Your task to perform on an android device: check data usage Image 0: 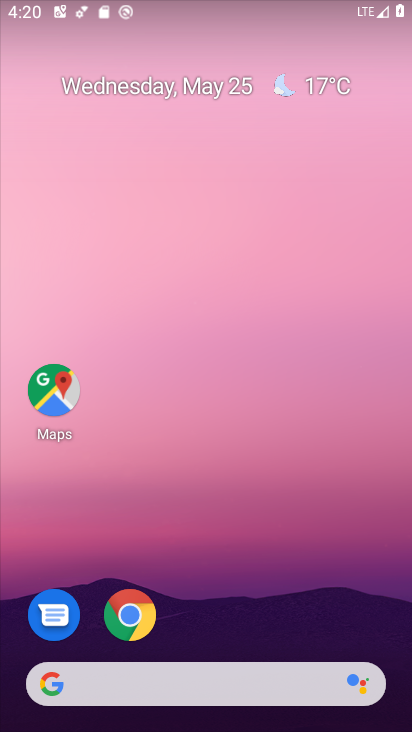
Step 0: drag from (371, 596) to (249, 1)
Your task to perform on an android device: check data usage Image 1: 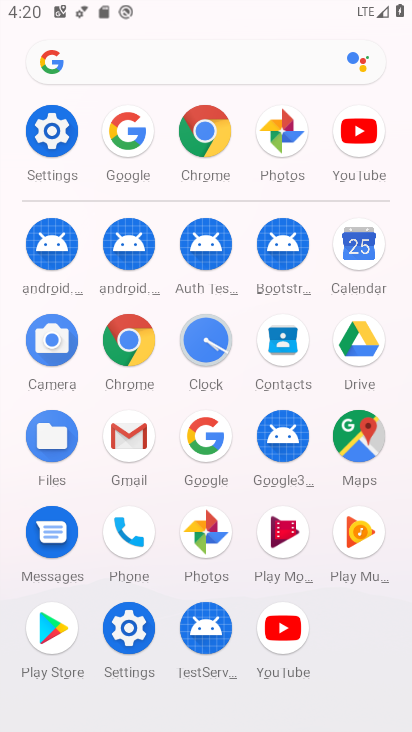
Step 1: click (57, 133)
Your task to perform on an android device: check data usage Image 2: 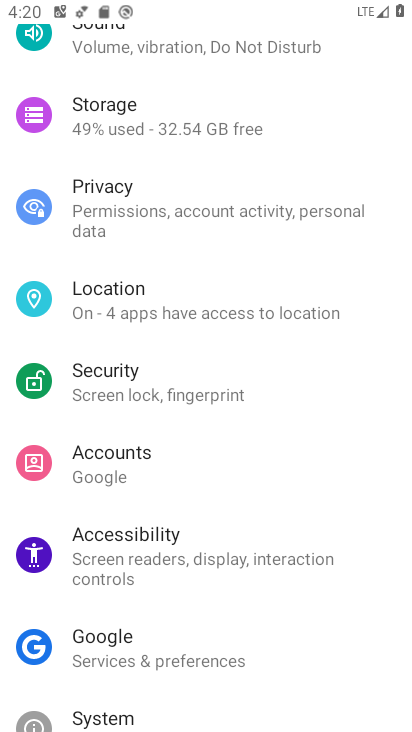
Step 2: drag from (263, 92) to (223, 677)
Your task to perform on an android device: check data usage Image 3: 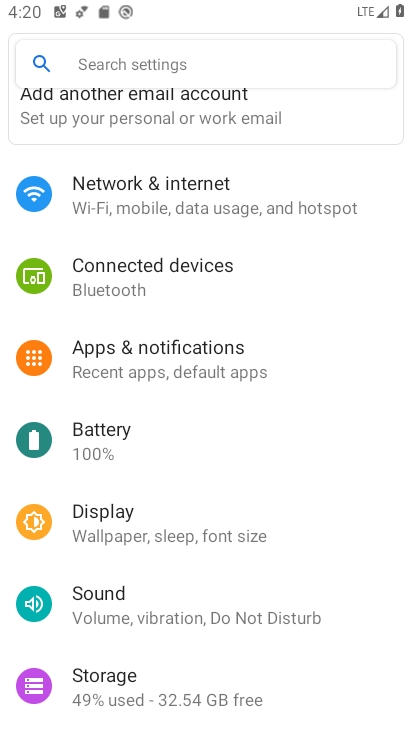
Step 3: click (190, 209)
Your task to perform on an android device: check data usage Image 4: 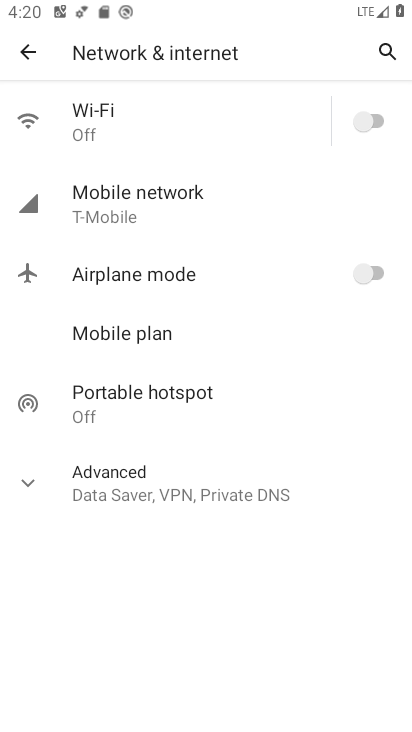
Step 4: click (105, 189)
Your task to perform on an android device: check data usage Image 5: 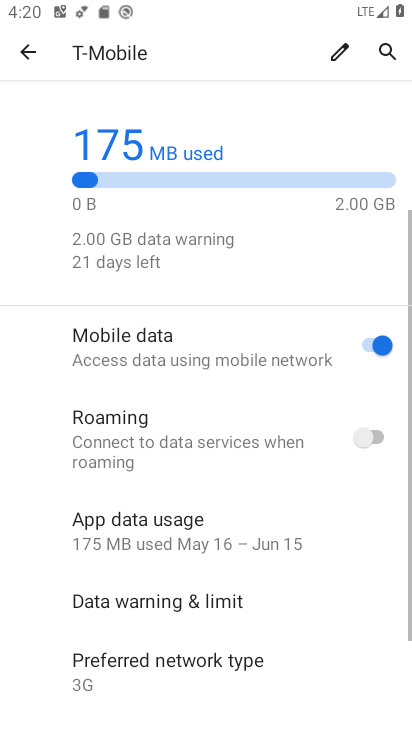
Step 5: task complete